Your task to perform on an android device: Open settings Image 0: 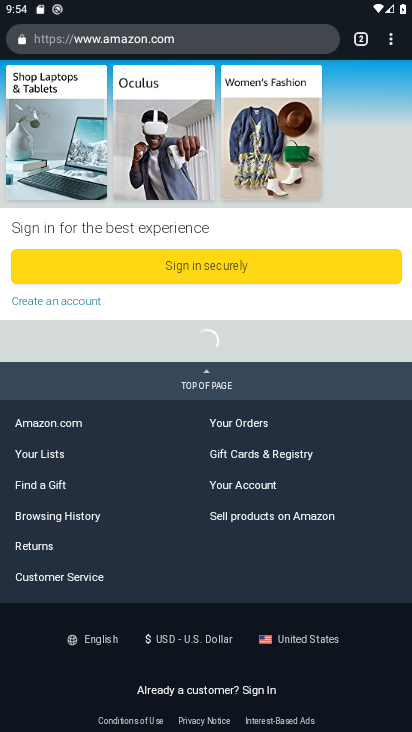
Step 0: press home button
Your task to perform on an android device: Open settings Image 1: 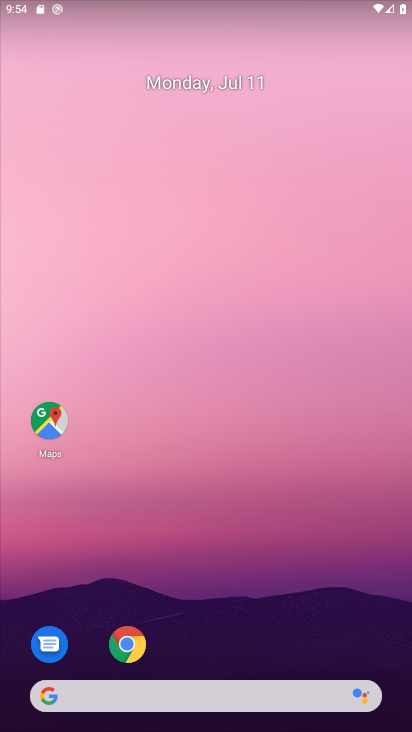
Step 1: drag from (251, 635) to (299, 50)
Your task to perform on an android device: Open settings Image 2: 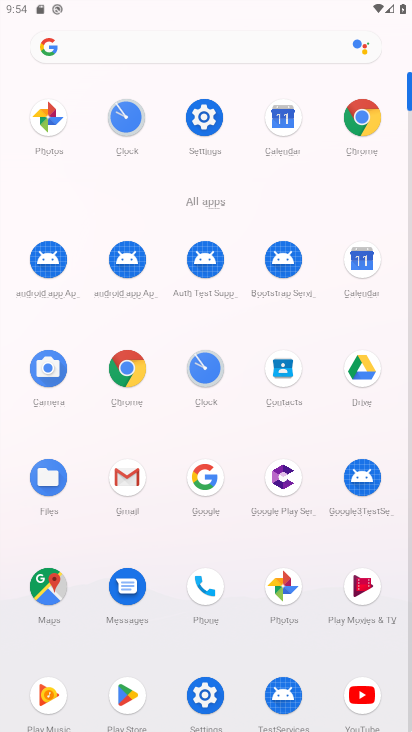
Step 2: click (205, 686)
Your task to perform on an android device: Open settings Image 3: 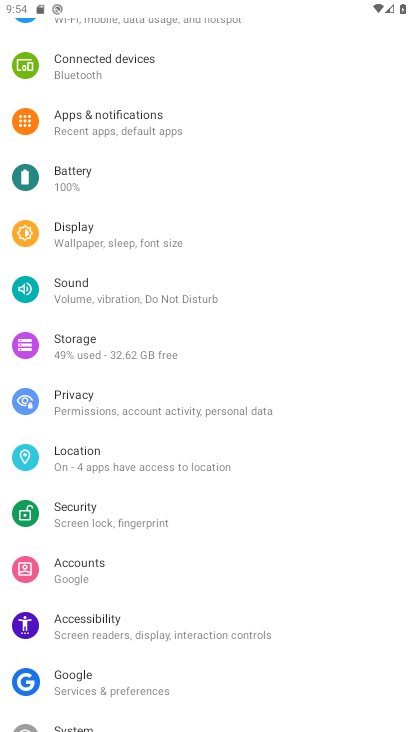
Step 3: task complete